Your task to perform on an android device: open app "Messenger Lite" (install if not already installed) and go to login screen Image 0: 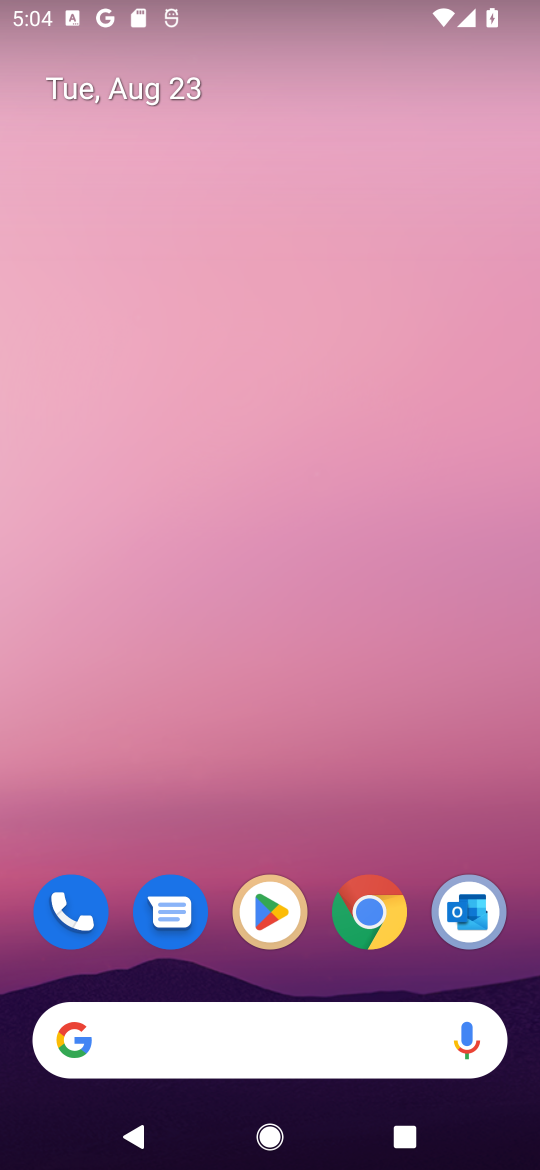
Step 0: drag from (222, 818) to (208, 67)
Your task to perform on an android device: open app "Messenger Lite" (install if not already installed) and go to login screen Image 1: 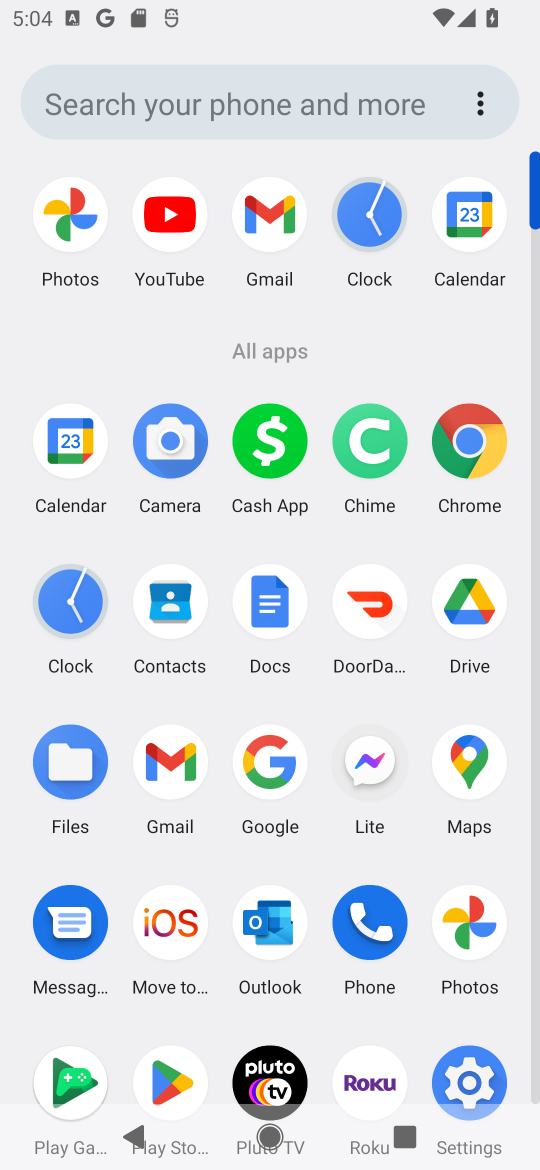
Step 1: drag from (286, 863) to (317, 308)
Your task to perform on an android device: open app "Messenger Lite" (install if not already installed) and go to login screen Image 2: 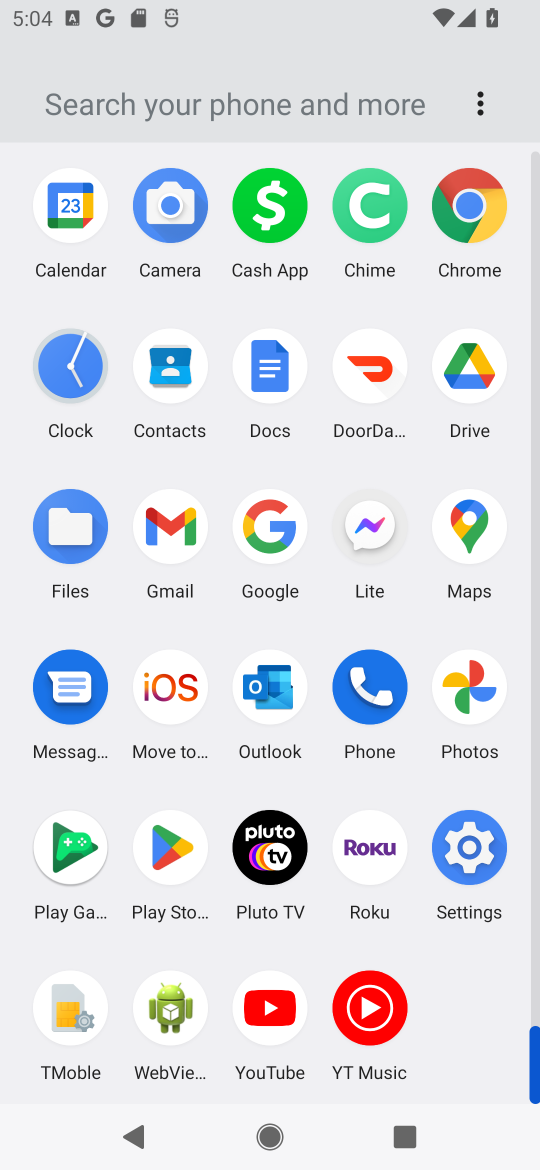
Step 2: click (180, 835)
Your task to perform on an android device: open app "Messenger Lite" (install if not already installed) and go to login screen Image 3: 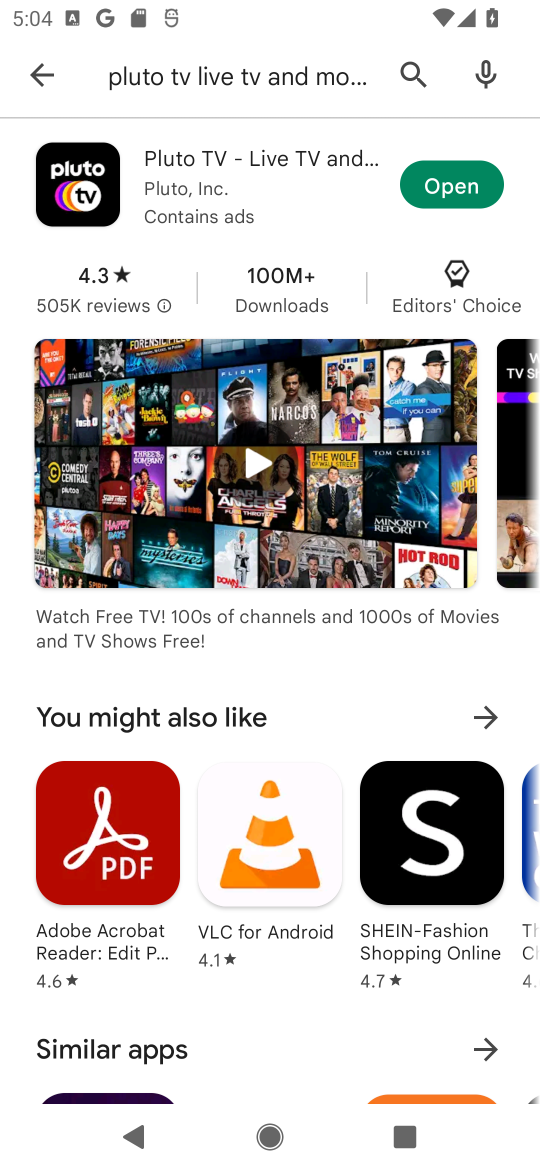
Step 3: click (46, 53)
Your task to perform on an android device: open app "Messenger Lite" (install if not already installed) and go to login screen Image 4: 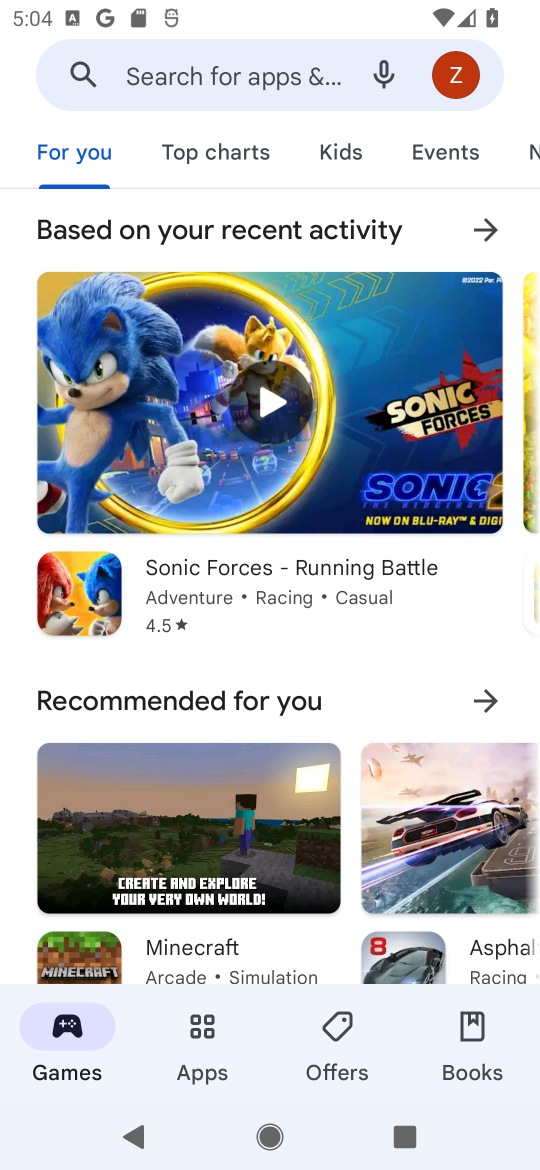
Step 4: click (283, 78)
Your task to perform on an android device: open app "Messenger Lite" (install if not already installed) and go to login screen Image 5: 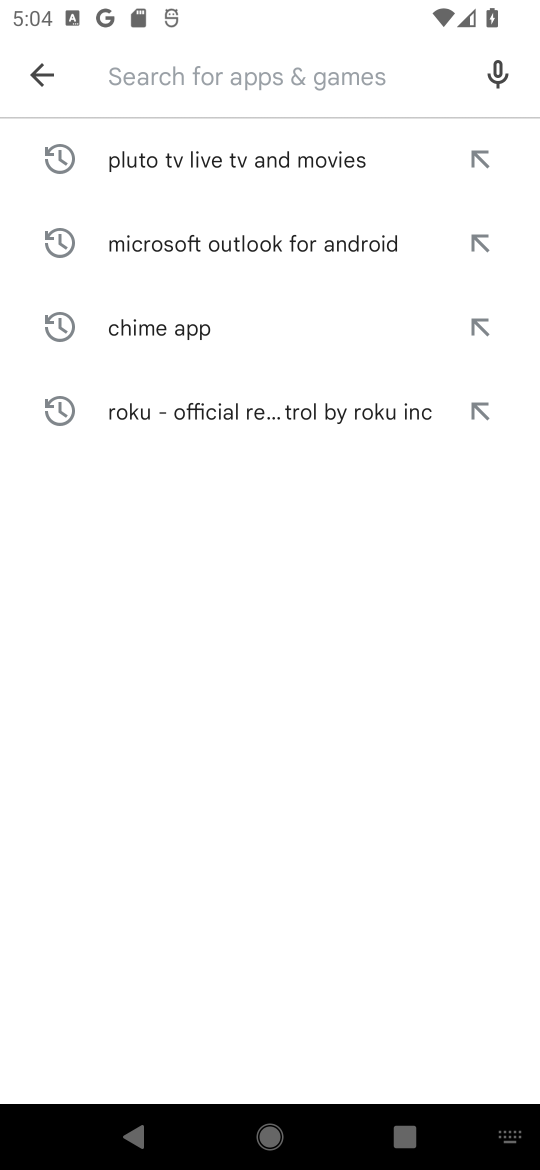
Step 5: type "Messenger Lite "
Your task to perform on an android device: open app "Messenger Lite" (install if not already installed) and go to login screen Image 6: 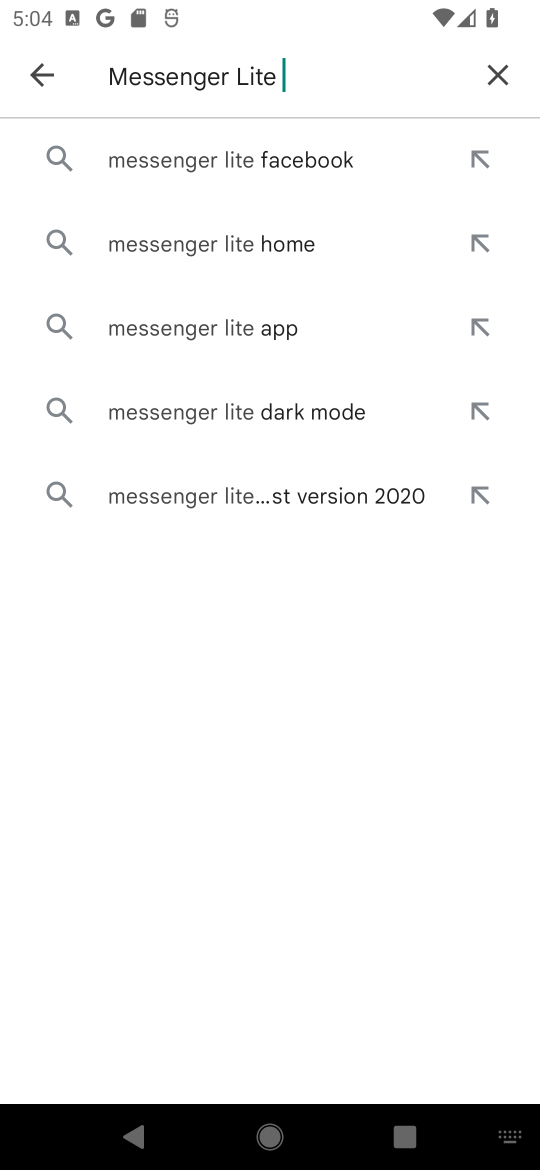
Step 6: click (227, 162)
Your task to perform on an android device: open app "Messenger Lite" (install if not already installed) and go to login screen Image 7: 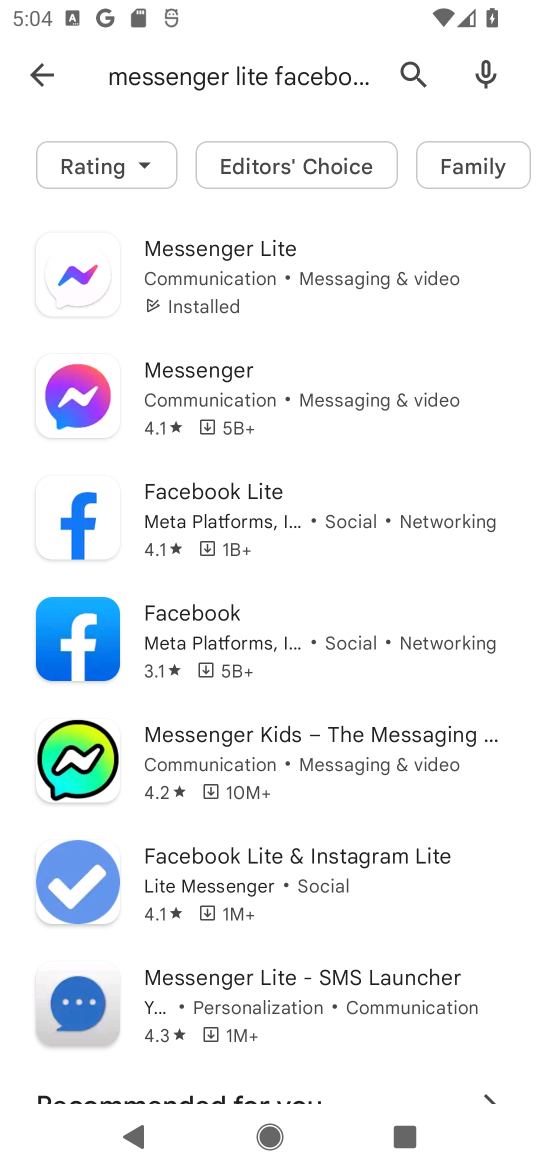
Step 7: click (253, 280)
Your task to perform on an android device: open app "Messenger Lite" (install if not already installed) and go to login screen Image 8: 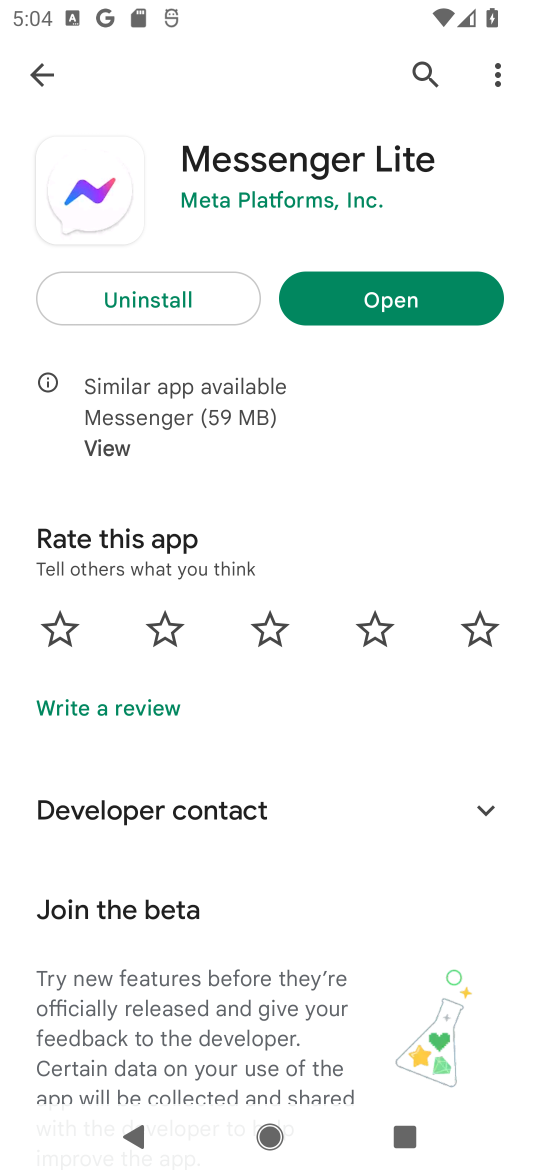
Step 8: click (370, 292)
Your task to perform on an android device: open app "Messenger Lite" (install if not already installed) and go to login screen Image 9: 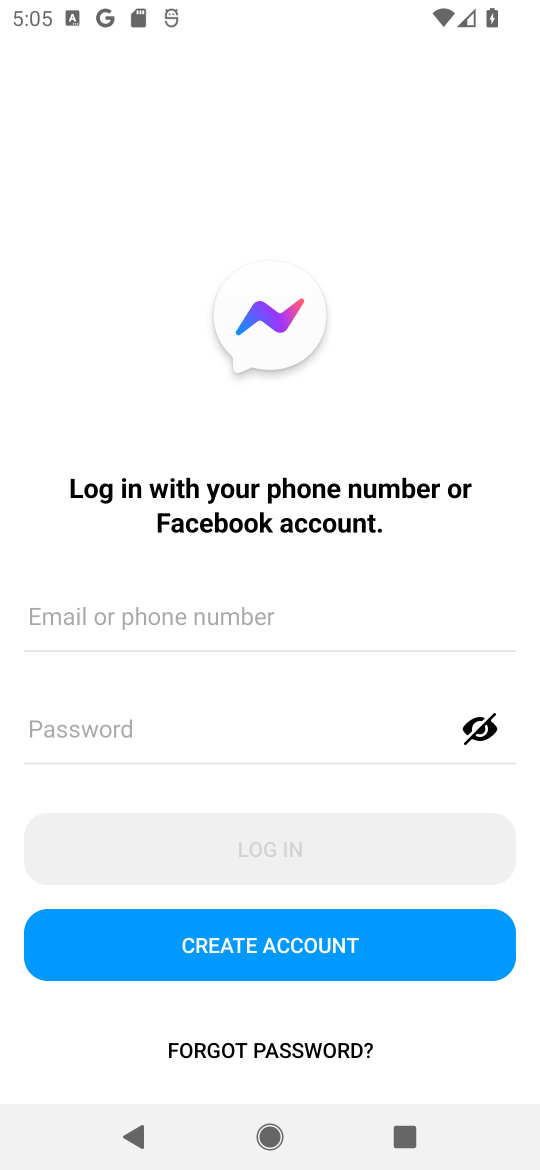
Step 9: task complete